Your task to perform on an android device: Is it going to rain today? Image 0: 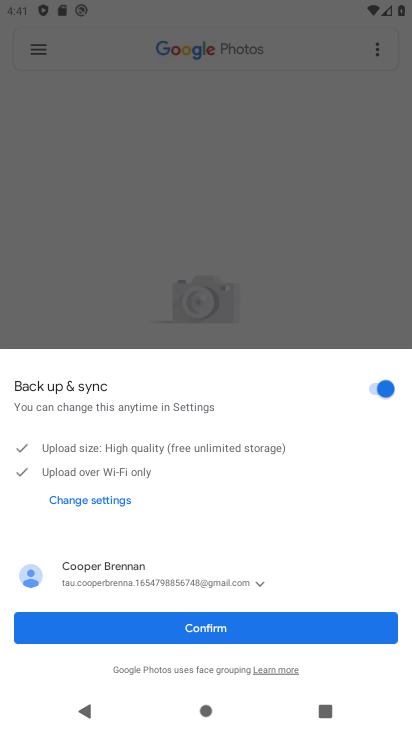
Step 0: press home button
Your task to perform on an android device: Is it going to rain today? Image 1: 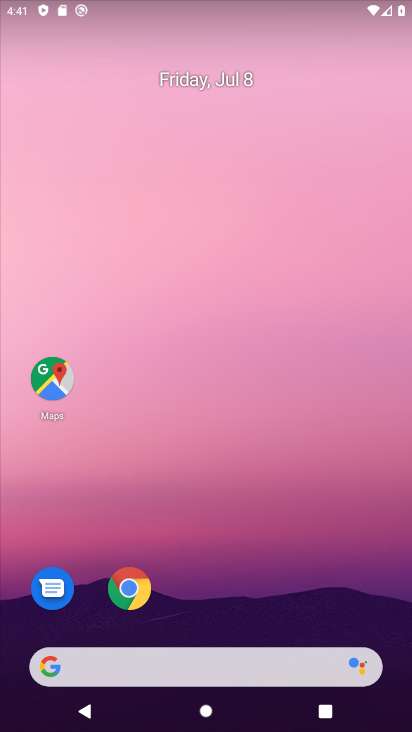
Step 1: click (270, 667)
Your task to perform on an android device: Is it going to rain today? Image 2: 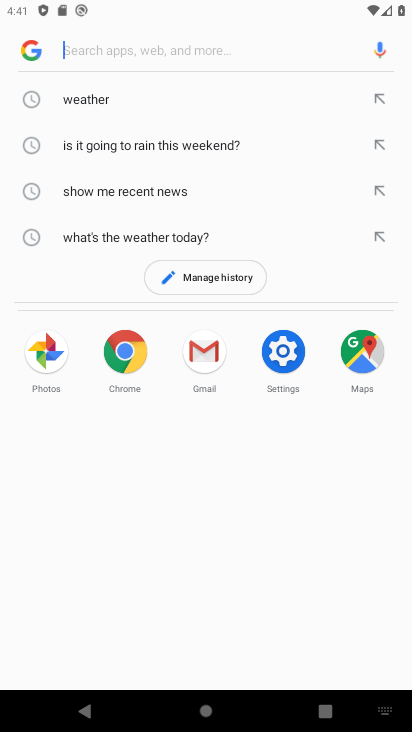
Step 2: type "Is it going to rain today?"
Your task to perform on an android device: Is it going to rain today? Image 3: 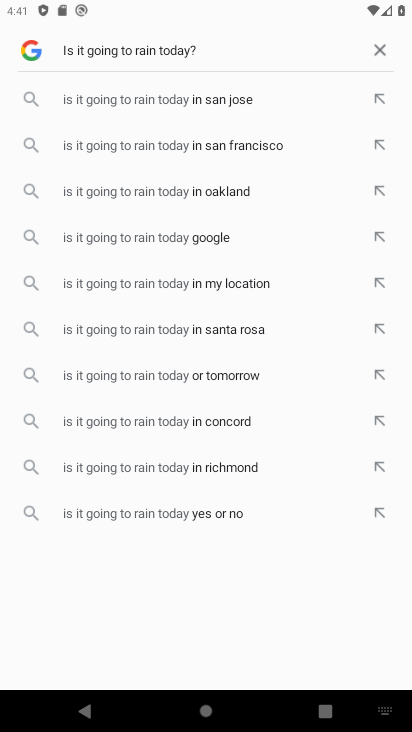
Step 3: press enter
Your task to perform on an android device: Is it going to rain today? Image 4: 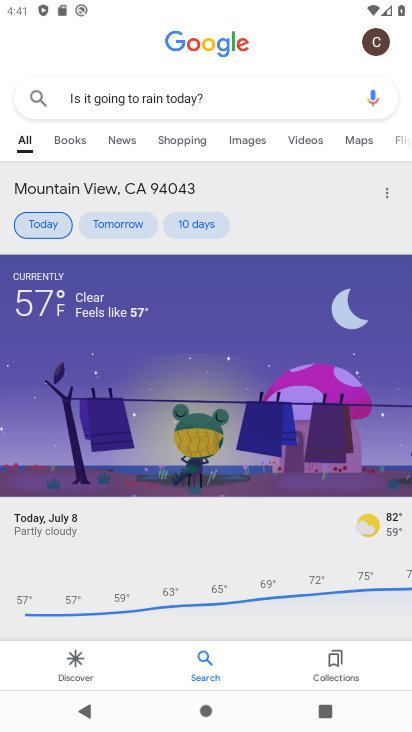
Step 4: task complete